Your task to perform on an android device: manage bookmarks in the chrome app Image 0: 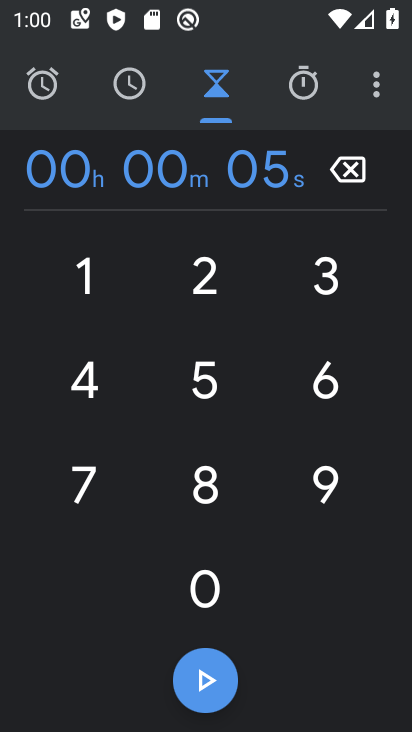
Step 0: press home button
Your task to perform on an android device: manage bookmarks in the chrome app Image 1: 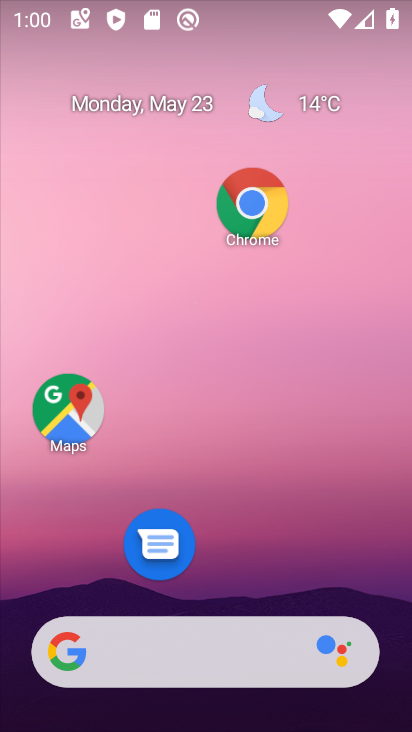
Step 1: click (245, 219)
Your task to perform on an android device: manage bookmarks in the chrome app Image 2: 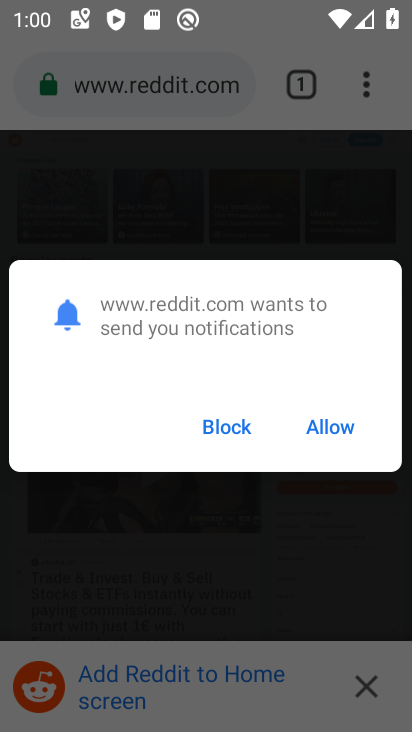
Step 2: press home button
Your task to perform on an android device: manage bookmarks in the chrome app Image 3: 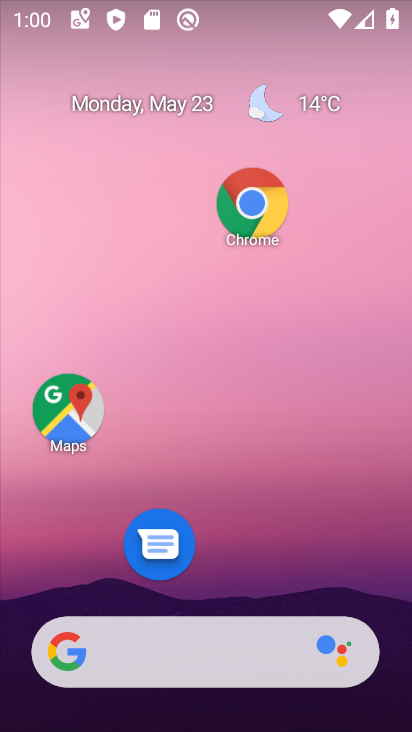
Step 3: drag from (260, 517) to (260, 13)
Your task to perform on an android device: manage bookmarks in the chrome app Image 4: 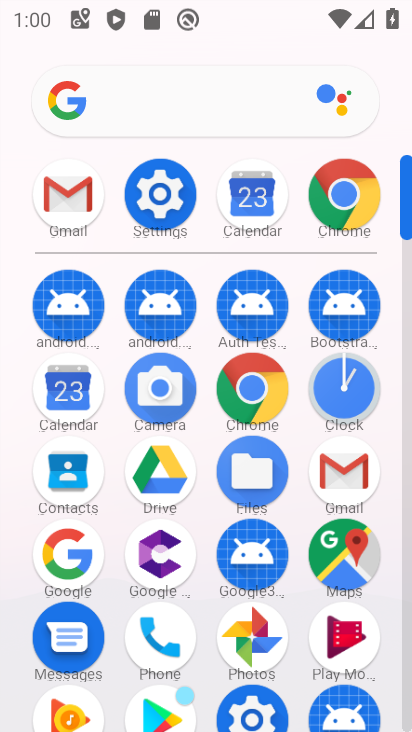
Step 4: click (364, 204)
Your task to perform on an android device: manage bookmarks in the chrome app Image 5: 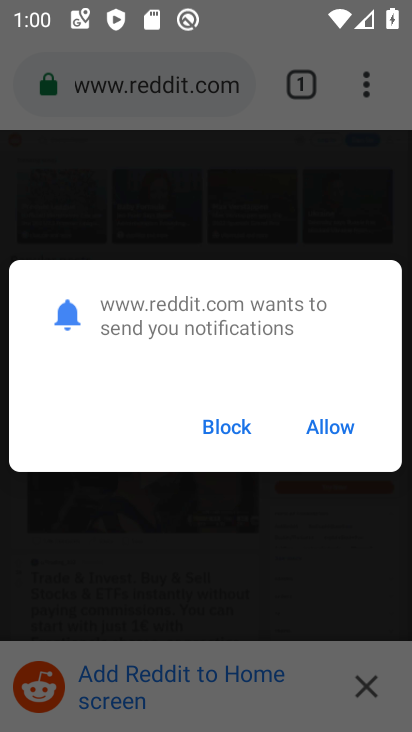
Step 5: click (368, 98)
Your task to perform on an android device: manage bookmarks in the chrome app Image 6: 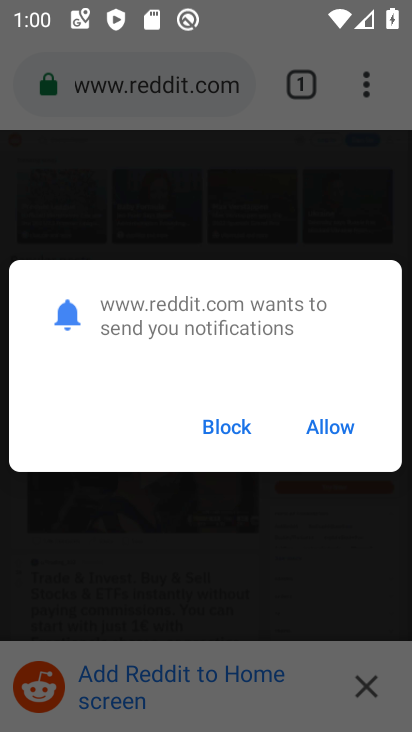
Step 6: click (239, 424)
Your task to perform on an android device: manage bookmarks in the chrome app Image 7: 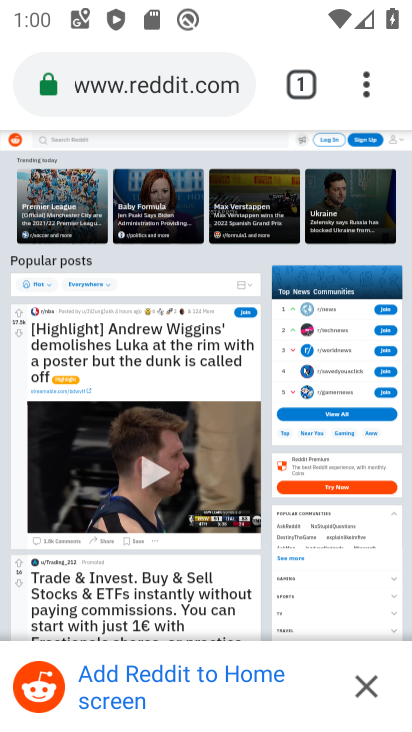
Step 7: task complete